Your task to perform on an android device: Is it going to rain today? Image 0: 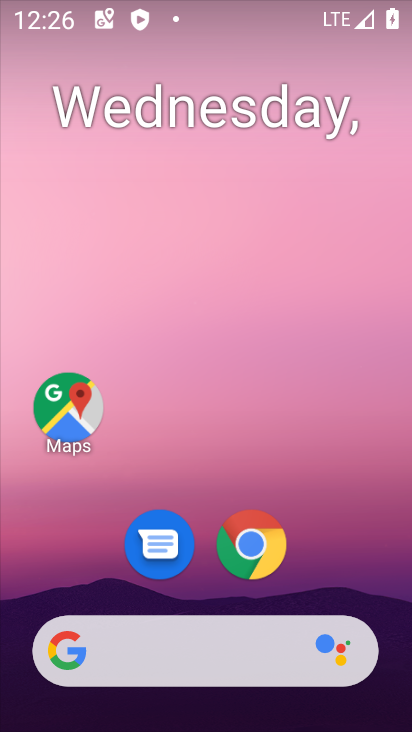
Step 0: drag from (399, 629) to (323, 76)
Your task to perform on an android device: Is it going to rain today? Image 1: 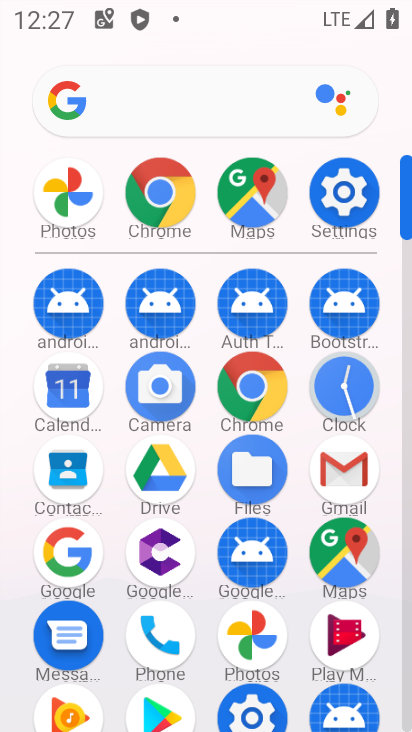
Step 1: click (150, 104)
Your task to perform on an android device: Is it going to rain today? Image 2: 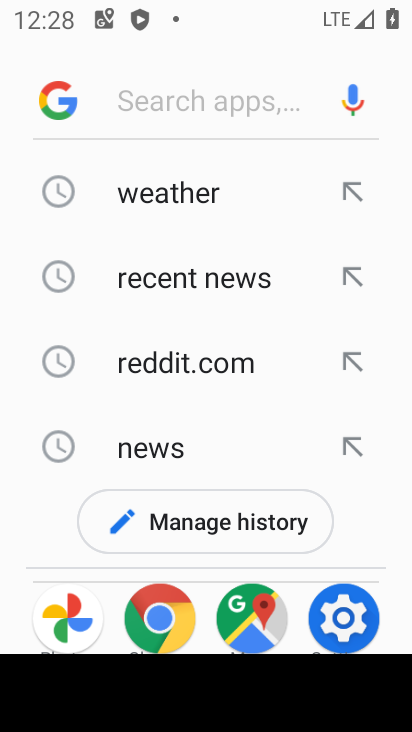
Step 2: type "is it going to rain today"
Your task to perform on an android device: Is it going to rain today? Image 3: 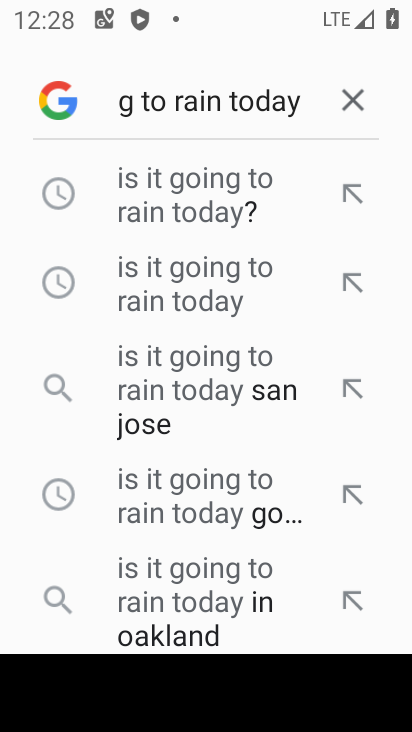
Step 3: click (237, 184)
Your task to perform on an android device: Is it going to rain today? Image 4: 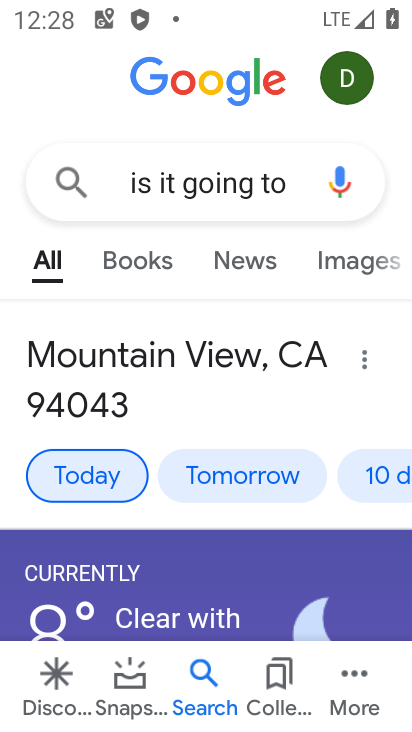
Step 4: task complete